Your task to perform on an android device: change notification settings in the gmail app Image 0: 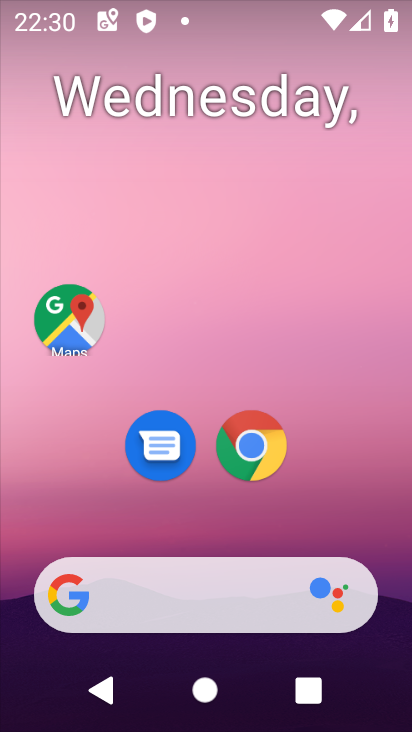
Step 0: drag from (337, 431) to (352, 102)
Your task to perform on an android device: change notification settings in the gmail app Image 1: 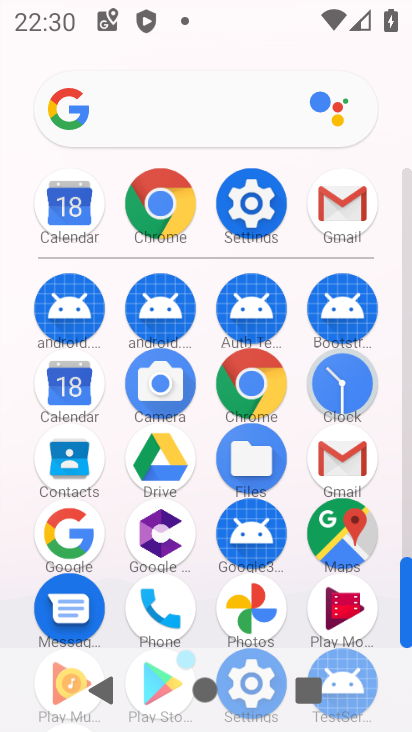
Step 1: click (346, 451)
Your task to perform on an android device: change notification settings in the gmail app Image 2: 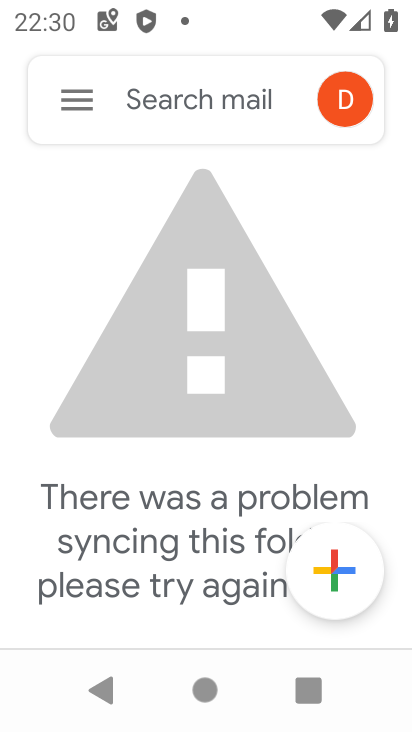
Step 2: click (75, 105)
Your task to perform on an android device: change notification settings in the gmail app Image 3: 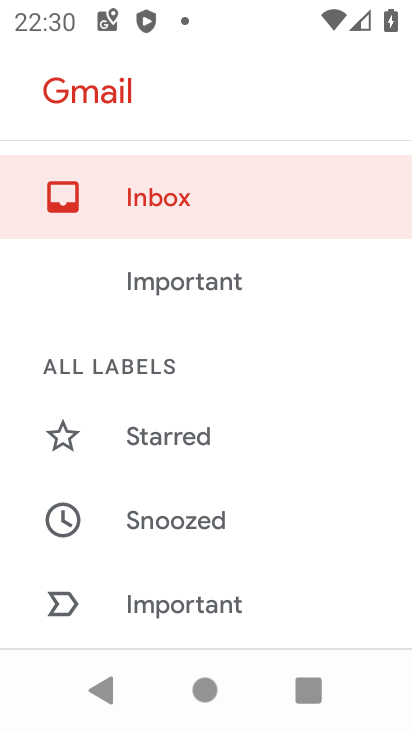
Step 3: drag from (235, 595) to (274, 173)
Your task to perform on an android device: change notification settings in the gmail app Image 4: 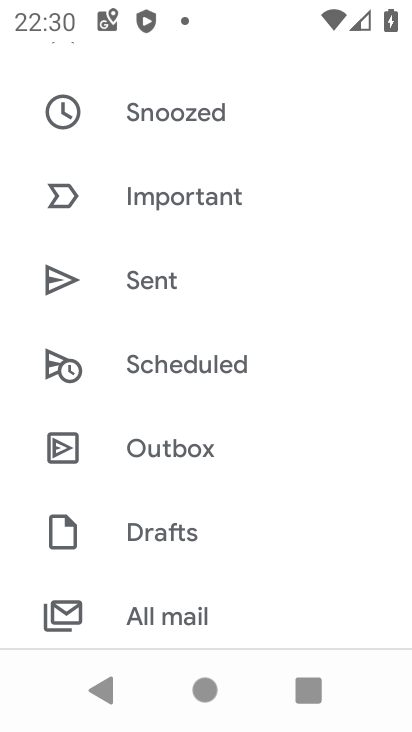
Step 4: drag from (213, 578) to (249, 205)
Your task to perform on an android device: change notification settings in the gmail app Image 5: 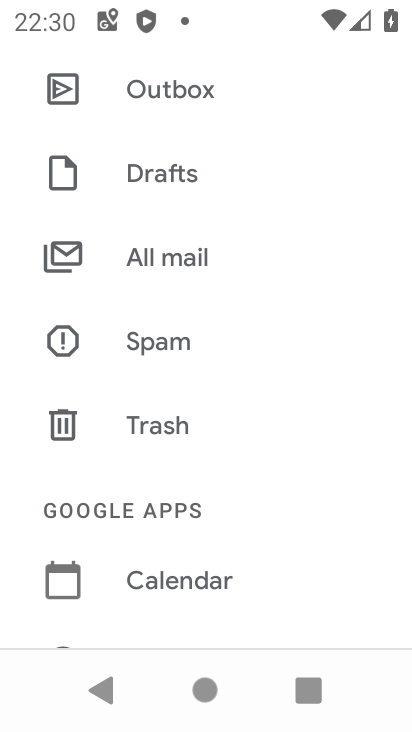
Step 5: drag from (151, 589) to (196, 278)
Your task to perform on an android device: change notification settings in the gmail app Image 6: 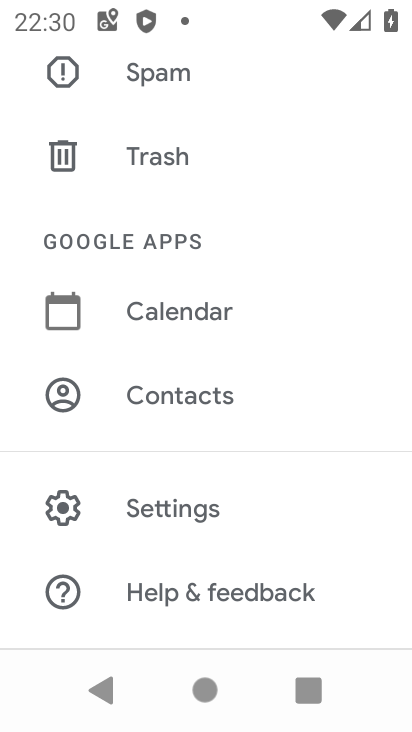
Step 6: click (177, 521)
Your task to perform on an android device: change notification settings in the gmail app Image 7: 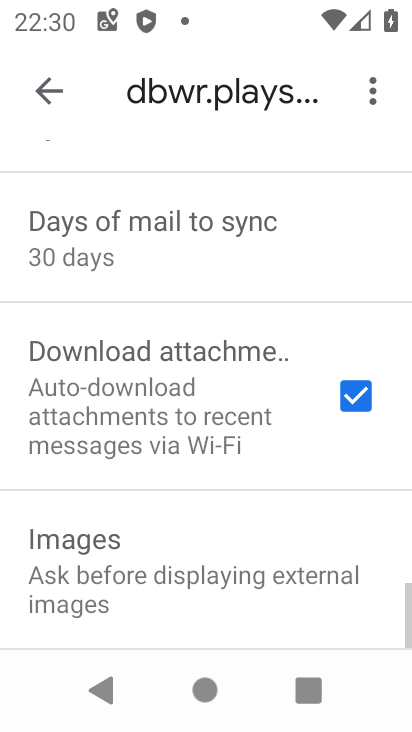
Step 7: drag from (175, 562) to (197, 141)
Your task to perform on an android device: change notification settings in the gmail app Image 8: 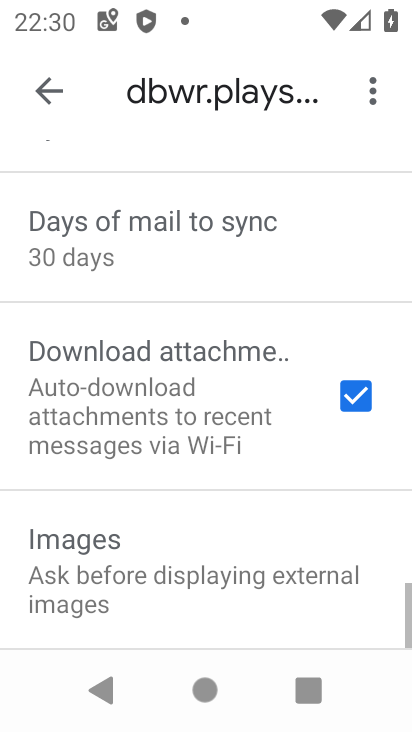
Step 8: drag from (131, 565) to (203, 234)
Your task to perform on an android device: change notification settings in the gmail app Image 9: 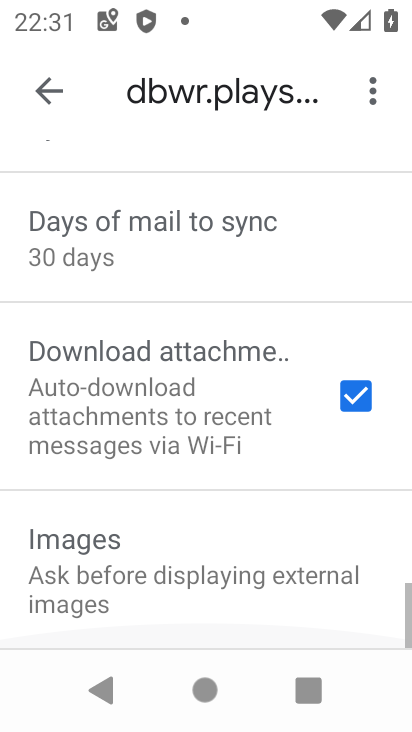
Step 9: drag from (177, 513) to (196, 394)
Your task to perform on an android device: change notification settings in the gmail app Image 10: 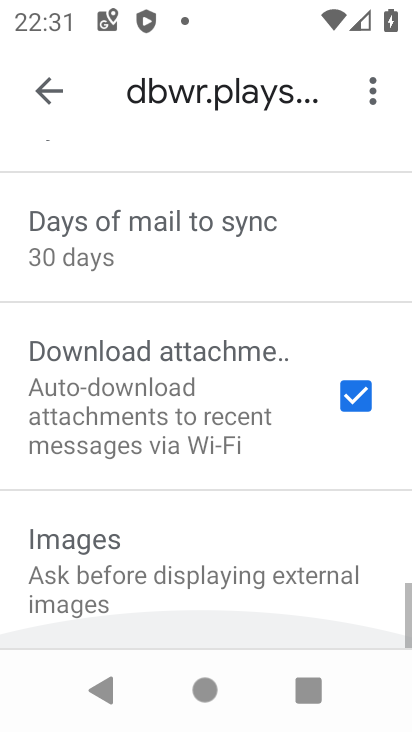
Step 10: drag from (149, 506) to (198, 189)
Your task to perform on an android device: change notification settings in the gmail app Image 11: 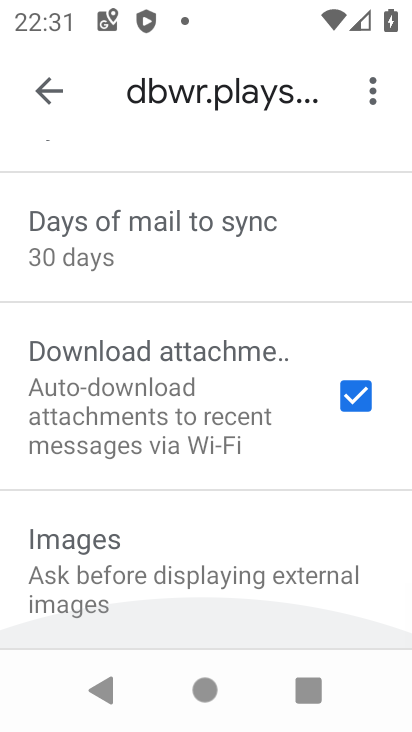
Step 11: drag from (118, 541) to (185, 243)
Your task to perform on an android device: change notification settings in the gmail app Image 12: 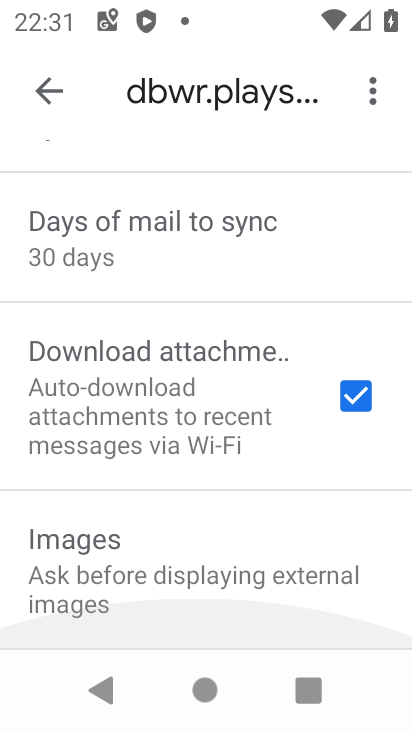
Step 12: drag from (168, 504) to (196, 329)
Your task to perform on an android device: change notification settings in the gmail app Image 13: 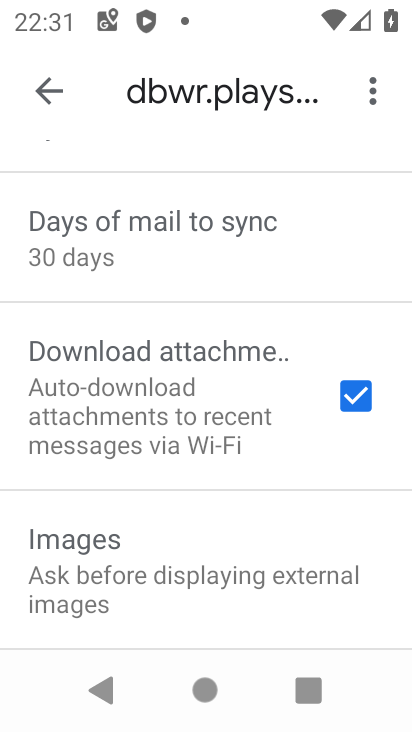
Step 13: click (49, 93)
Your task to perform on an android device: change notification settings in the gmail app Image 14: 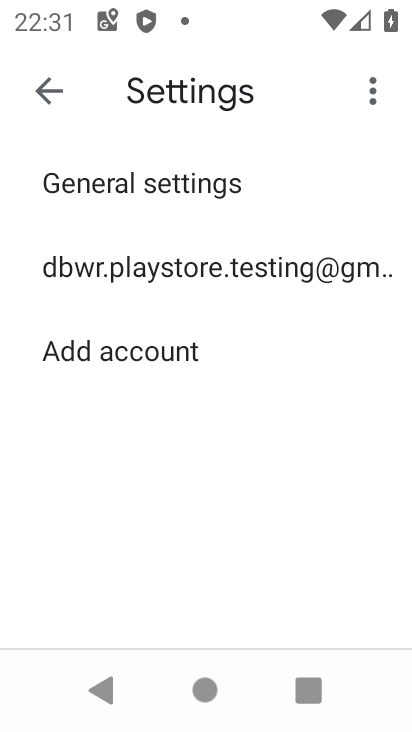
Step 14: click (106, 261)
Your task to perform on an android device: change notification settings in the gmail app Image 15: 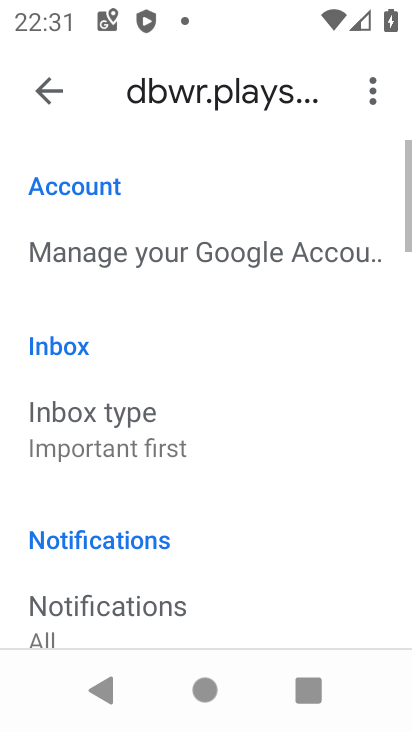
Step 15: drag from (199, 599) to (218, 340)
Your task to perform on an android device: change notification settings in the gmail app Image 16: 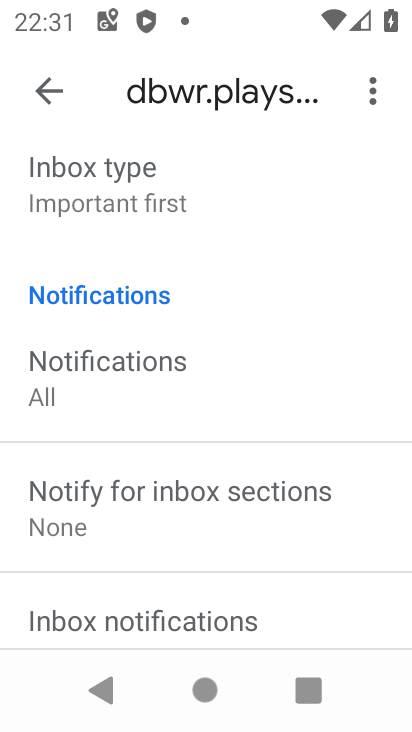
Step 16: click (106, 359)
Your task to perform on an android device: change notification settings in the gmail app Image 17: 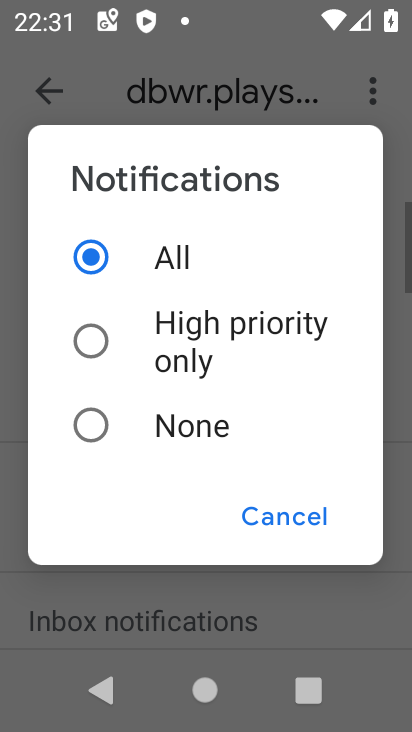
Step 17: click (131, 413)
Your task to perform on an android device: change notification settings in the gmail app Image 18: 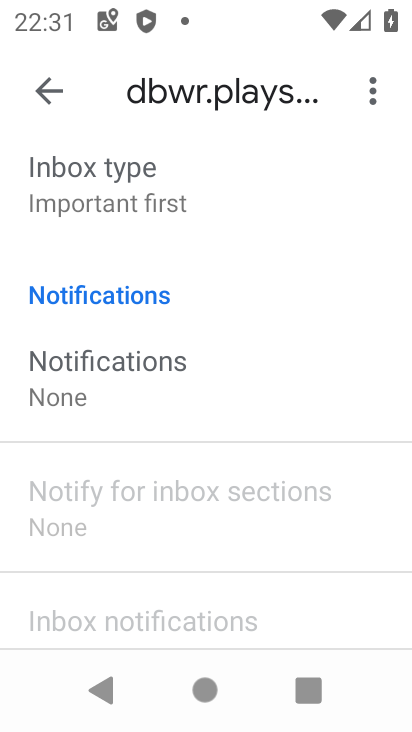
Step 18: task complete